Your task to perform on an android device: turn pop-ups on in chrome Image 0: 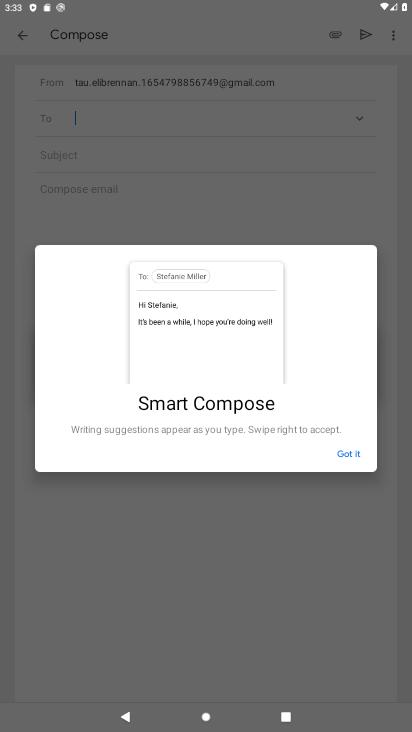
Step 0: press home button
Your task to perform on an android device: turn pop-ups on in chrome Image 1: 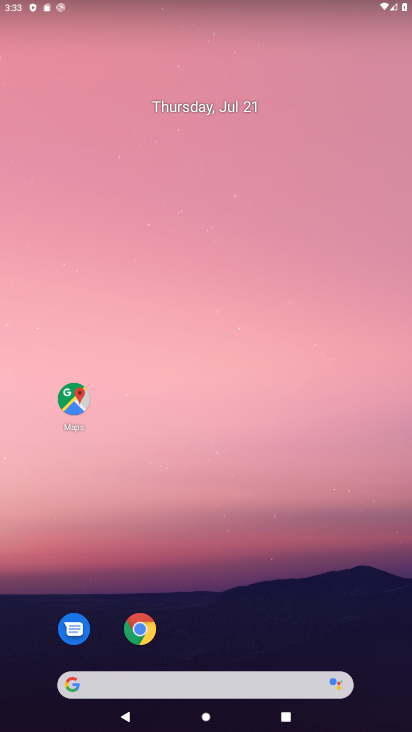
Step 1: click (148, 627)
Your task to perform on an android device: turn pop-ups on in chrome Image 2: 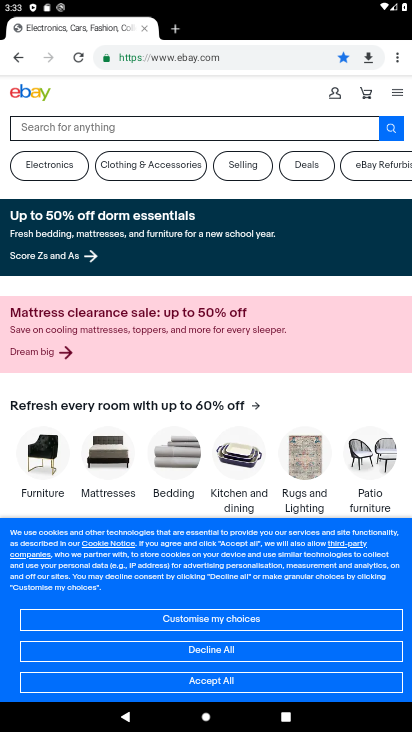
Step 2: click (397, 57)
Your task to perform on an android device: turn pop-ups on in chrome Image 3: 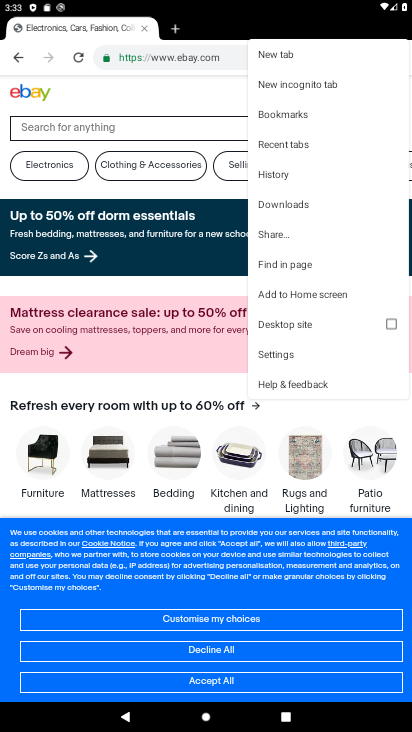
Step 3: click (289, 350)
Your task to perform on an android device: turn pop-ups on in chrome Image 4: 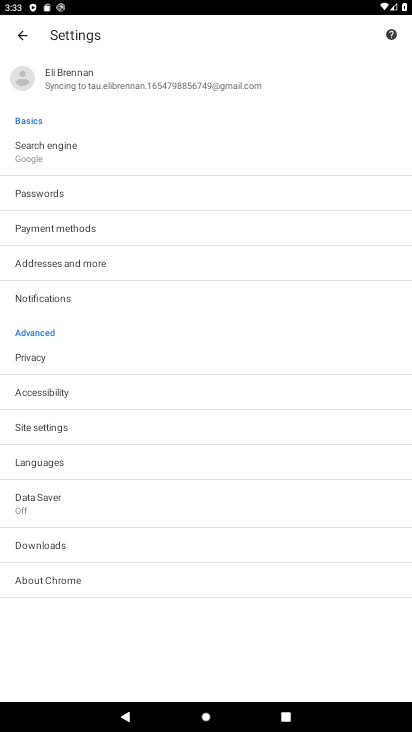
Step 4: click (45, 422)
Your task to perform on an android device: turn pop-ups on in chrome Image 5: 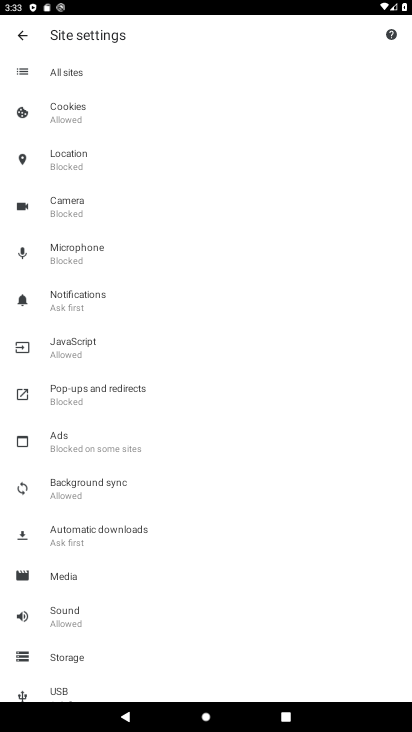
Step 5: click (111, 399)
Your task to perform on an android device: turn pop-ups on in chrome Image 6: 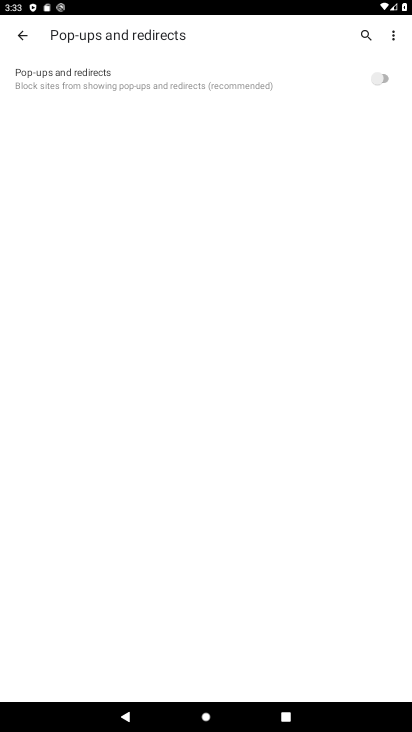
Step 6: click (378, 77)
Your task to perform on an android device: turn pop-ups on in chrome Image 7: 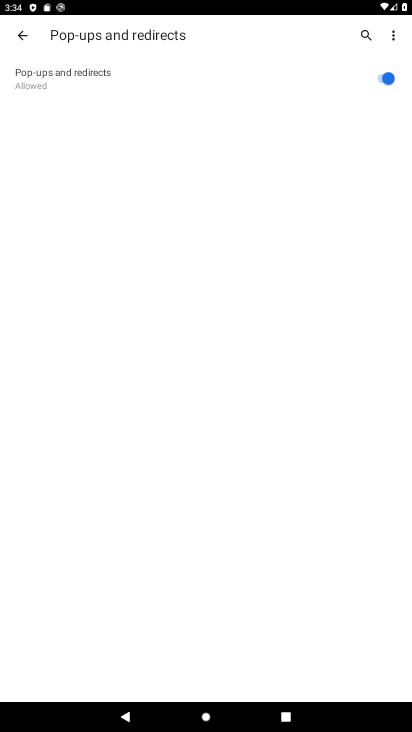
Step 7: task complete